Your task to perform on an android device: set default search engine in the chrome app Image 0: 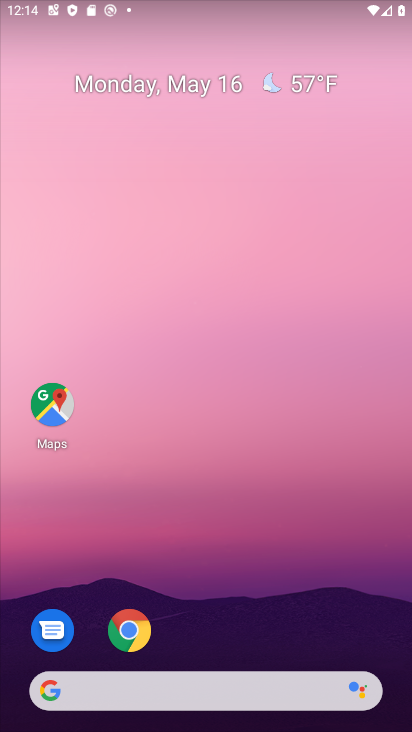
Step 0: drag from (224, 665) to (265, 219)
Your task to perform on an android device: set default search engine in the chrome app Image 1: 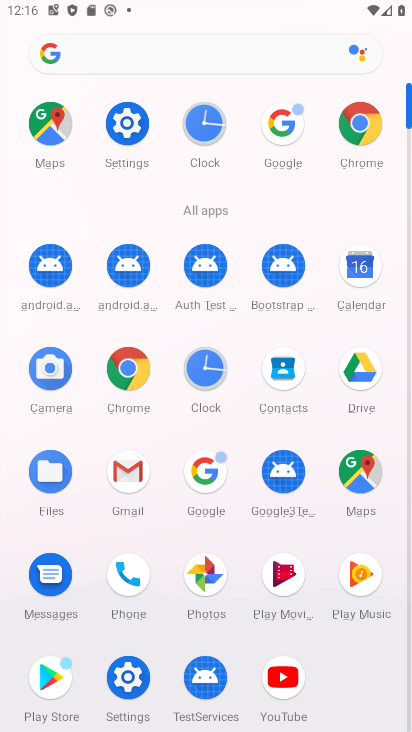
Step 1: click (129, 370)
Your task to perform on an android device: set default search engine in the chrome app Image 2: 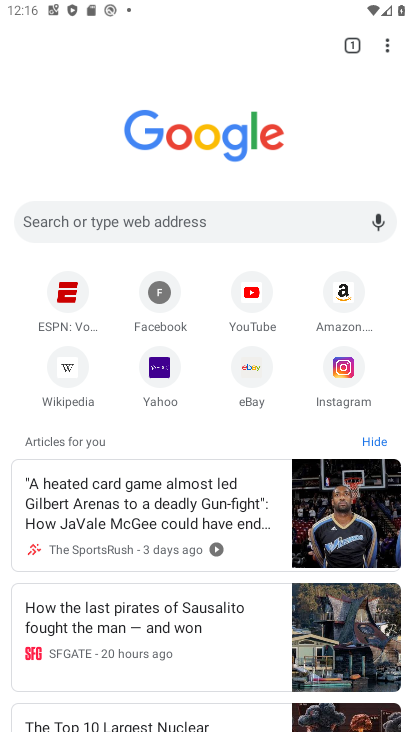
Step 2: click (389, 44)
Your task to perform on an android device: set default search engine in the chrome app Image 3: 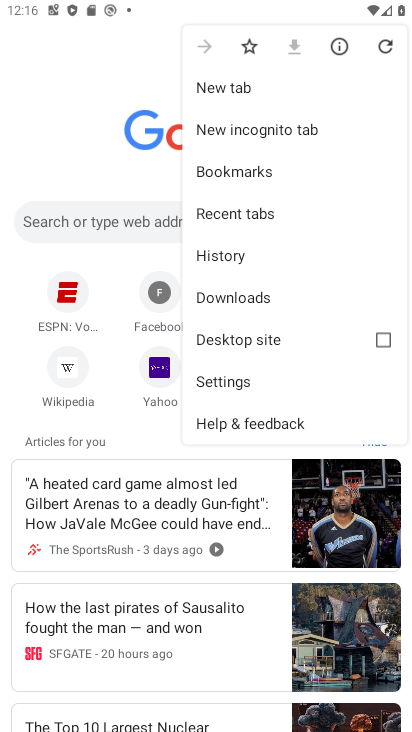
Step 3: click (221, 379)
Your task to perform on an android device: set default search engine in the chrome app Image 4: 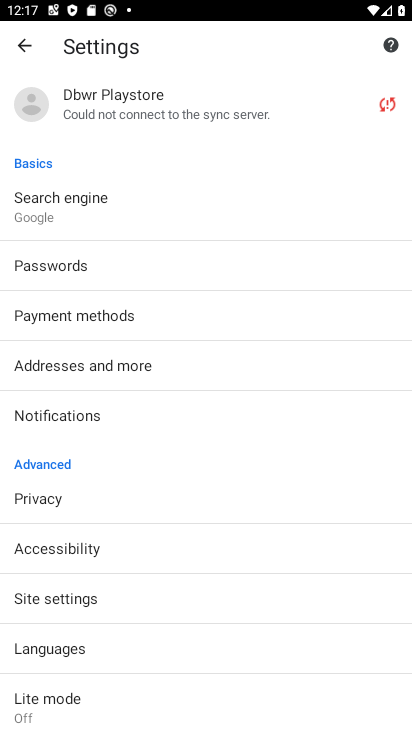
Step 4: click (86, 212)
Your task to perform on an android device: set default search engine in the chrome app Image 5: 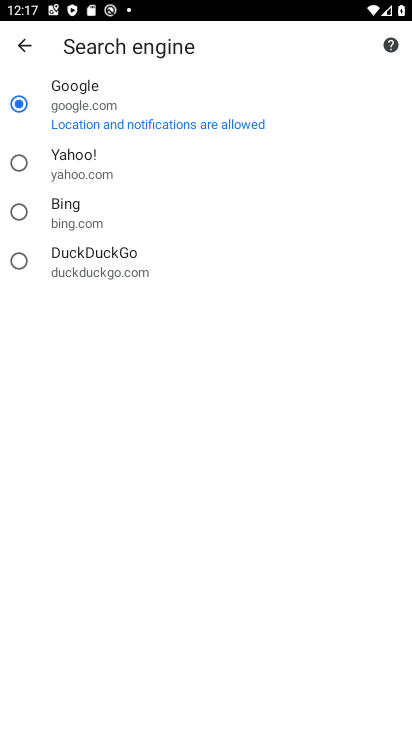
Step 5: task complete